Your task to perform on an android device: open app "Messages" (install if not already installed) and enter user name: "Hersey@inbox.com" and password: "facings" Image 0: 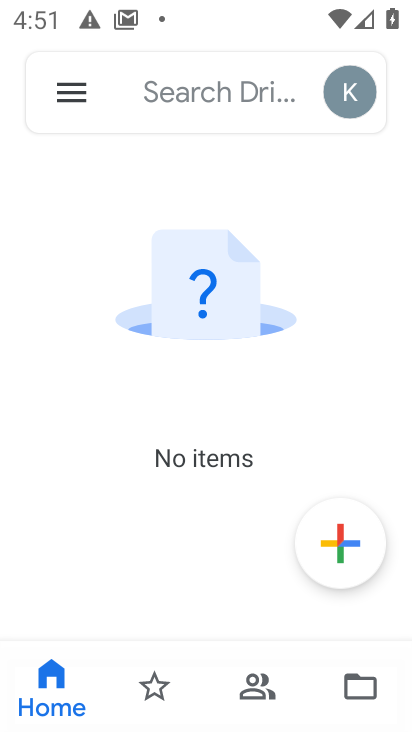
Step 0: press home button
Your task to perform on an android device: open app "Messages" (install if not already installed) and enter user name: "Hersey@inbox.com" and password: "facings" Image 1: 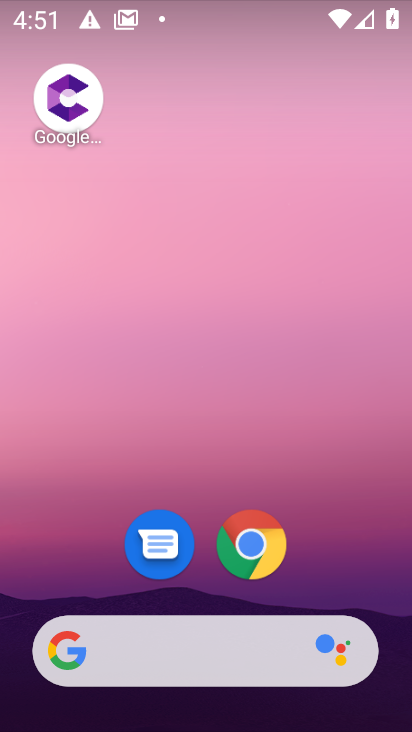
Step 1: drag from (190, 665) to (239, 8)
Your task to perform on an android device: open app "Messages" (install if not already installed) and enter user name: "Hersey@inbox.com" and password: "facings" Image 2: 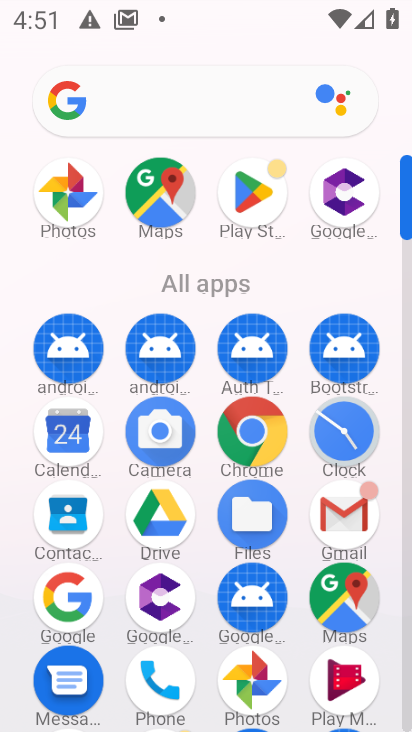
Step 2: click (256, 197)
Your task to perform on an android device: open app "Messages" (install if not already installed) and enter user name: "Hersey@inbox.com" and password: "facings" Image 3: 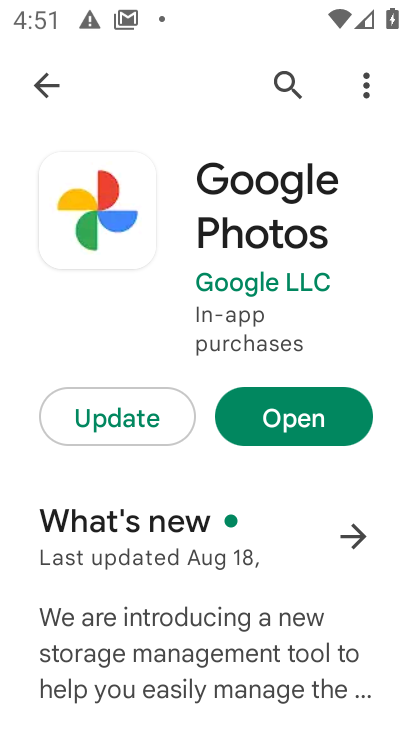
Step 3: press back button
Your task to perform on an android device: open app "Messages" (install if not already installed) and enter user name: "Hersey@inbox.com" and password: "facings" Image 4: 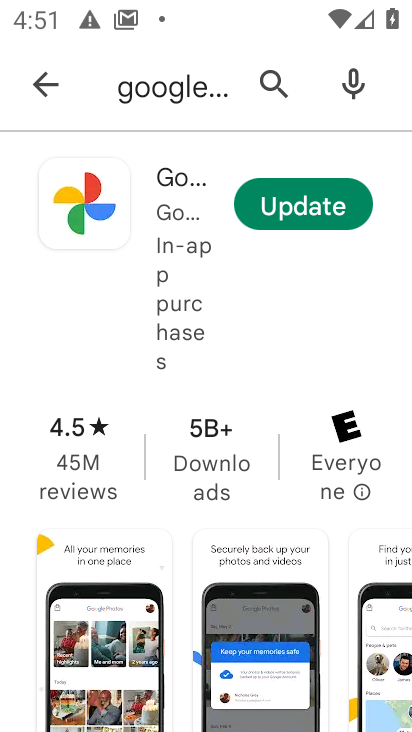
Step 4: press back button
Your task to perform on an android device: open app "Messages" (install if not already installed) and enter user name: "Hersey@inbox.com" and password: "facings" Image 5: 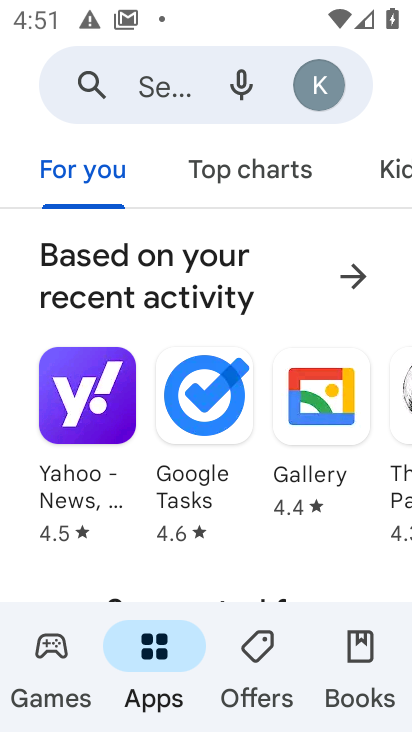
Step 5: click (175, 83)
Your task to perform on an android device: open app "Messages" (install if not already installed) and enter user name: "Hersey@inbox.com" and password: "facings" Image 6: 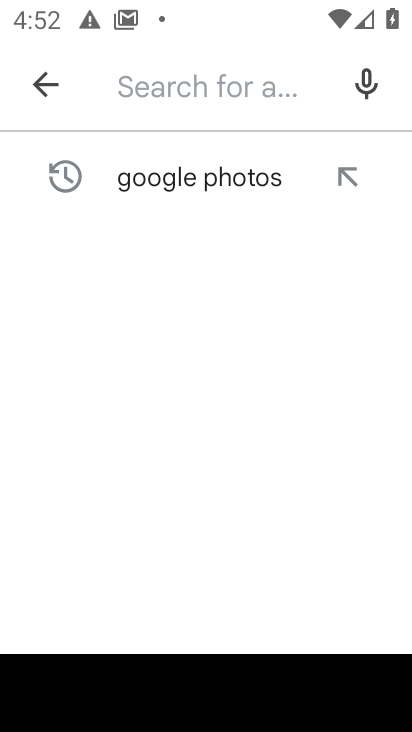
Step 6: type "Messages"
Your task to perform on an android device: open app "Messages" (install if not already installed) and enter user name: "Hersey@inbox.com" and password: "facings" Image 7: 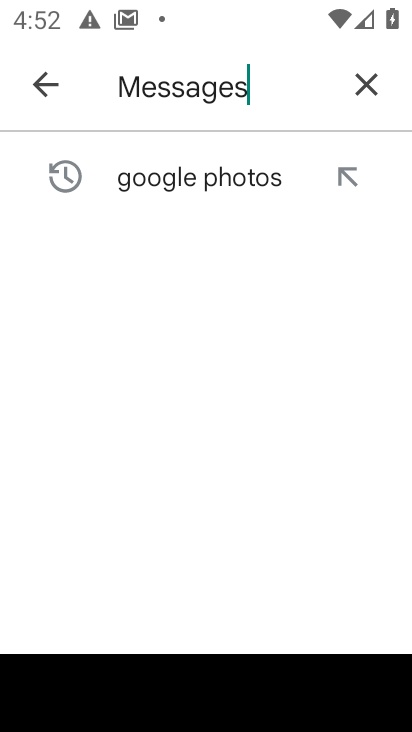
Step 7: type ""
Your task to perform on an android device: open app "Messages" (install if not already installed) and enter user name: "Hersey@inbox.com" and password: "facings" Image 8: 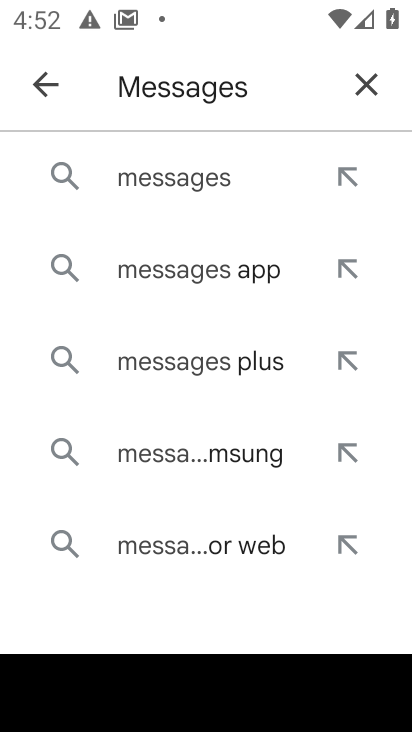
Step 8: click (204, 178)
Your task to perform on an android device: open app "Messages" (install if not already installed) and enter user name: "Hersey@inbox.com" and password: "facings" Image 9: 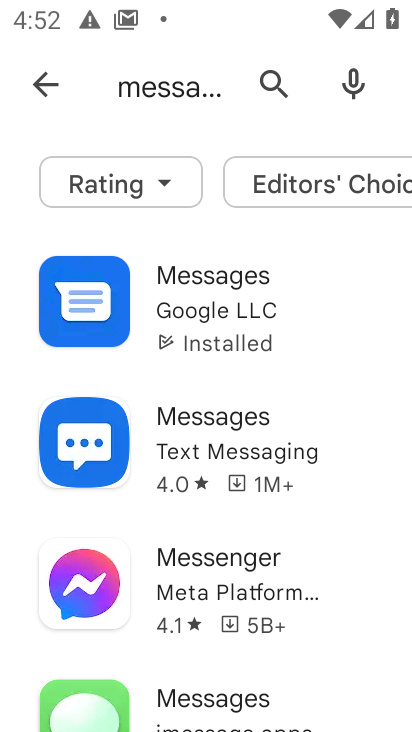
Step 9: click (212, 272)
Your task to perform on an android device: open app "Messages" (install if not already installed) and enter user name: "Hersey@inbox.com" and password: "facings" Image 10: 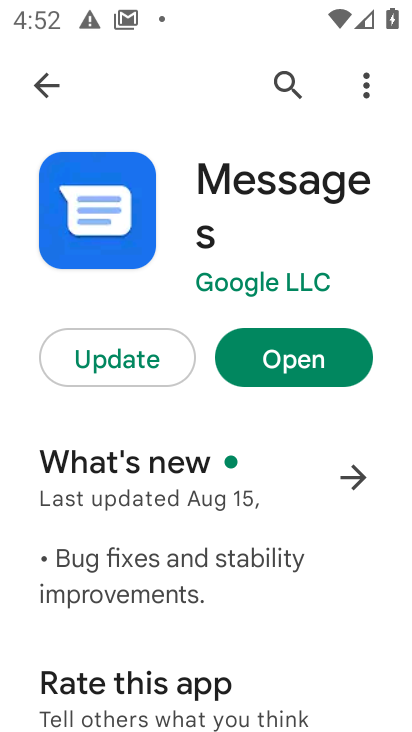
Step 10: click (280, 341)
Your task to perform on an android device: open app "Messages" (install if not already installed) and enter user name: "Hersey@inbox.com" and password: "facings" Image 11: 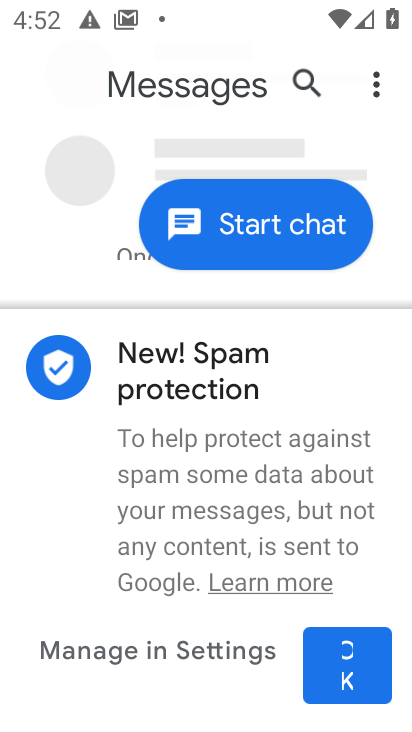
Step 11: click (348, 659)
Your task to perform on an android device: open app "Messages" (install if not already installed) and enter user name: "Hersey@inbox.com" and password: "facings" Image 12: 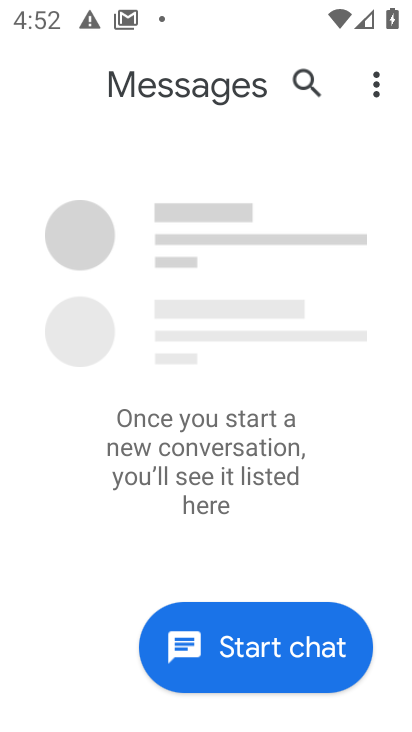
Step 12: click (391, 89)
Your task to perform on an android device: open app "Messages" (install if not already installed) and enter user name: "Hersey@inbox.com" and password: "facings" Image 13: 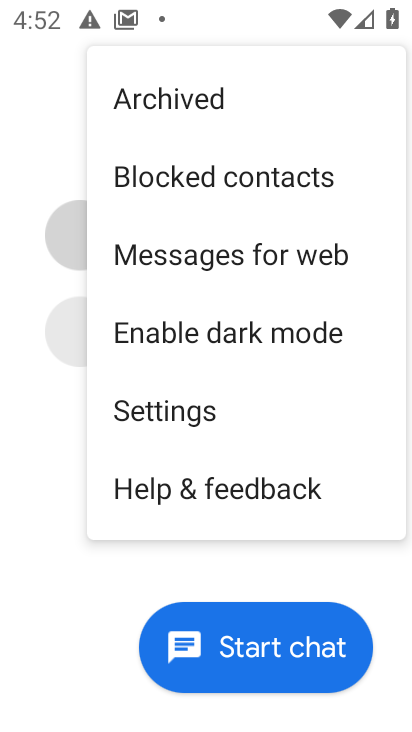
Step 13: click (191, 414)
Your task to perform on an android device: open app "Messages" (install if not already installed) and enter user name: "Hersey@inbox.com" and password: "facings" Image 14: 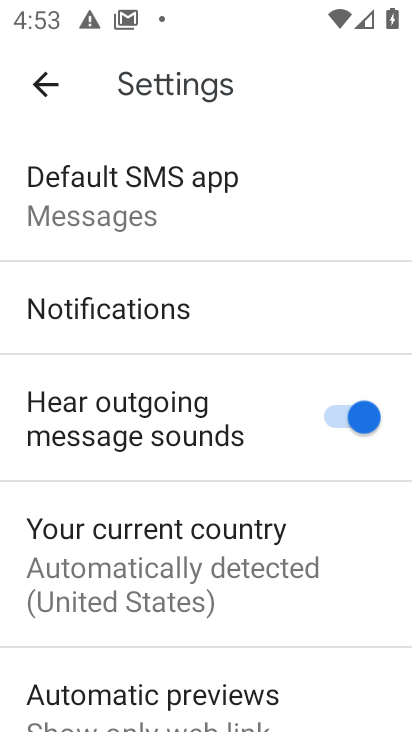
Step 14: task complete